Your task to perform on an android device: Open calendar and show me the fourth week of next month Image 0: 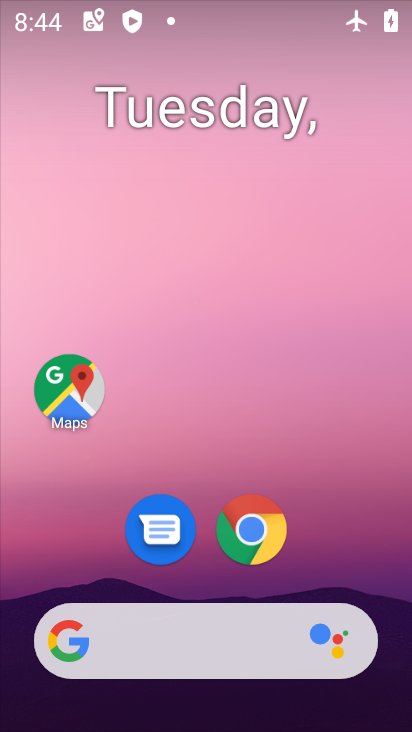
Step 0: drag from (242, 633) to (211, 135)
Your task to perform on an android device: Open calendar and show me the fourth week of next month Image 1: 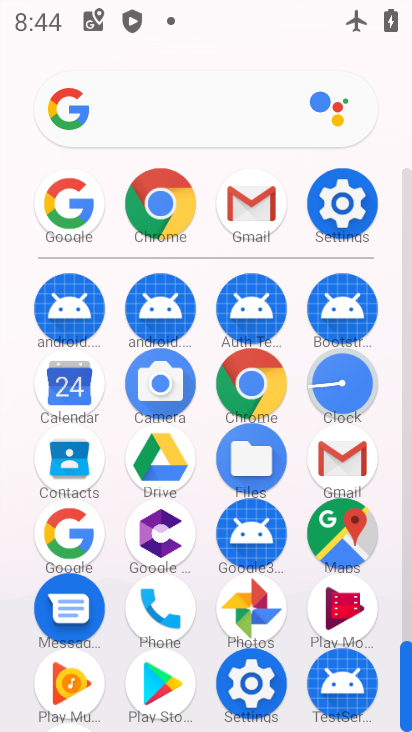
Step 1: click (254, 398)
Your task to perform on an android device: Open calendar and show me the fourth week of next month Image 2: 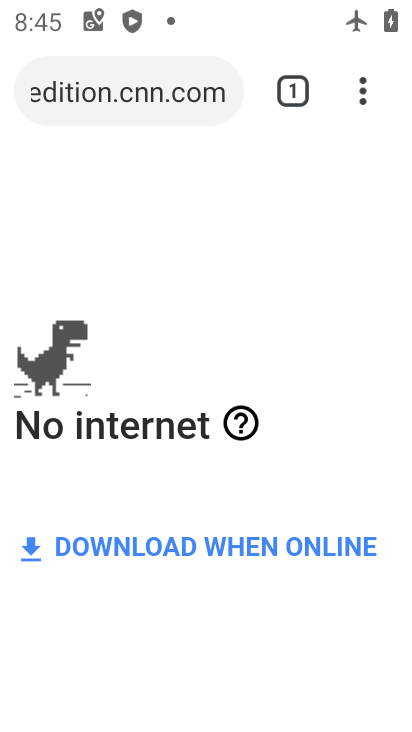
Step 2: task complete